Your task to perform on an android device: clear all cookies in the chrome app Image 0: 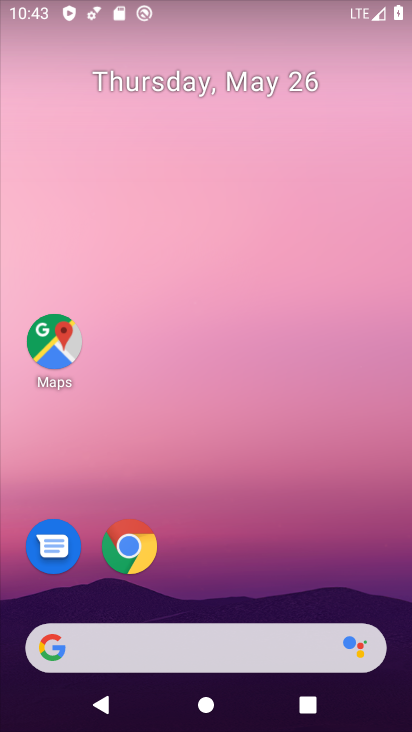
Step 0: click (131, 540)
Your task to perform on an android device: clear all cookies in the chrome app Image 1: 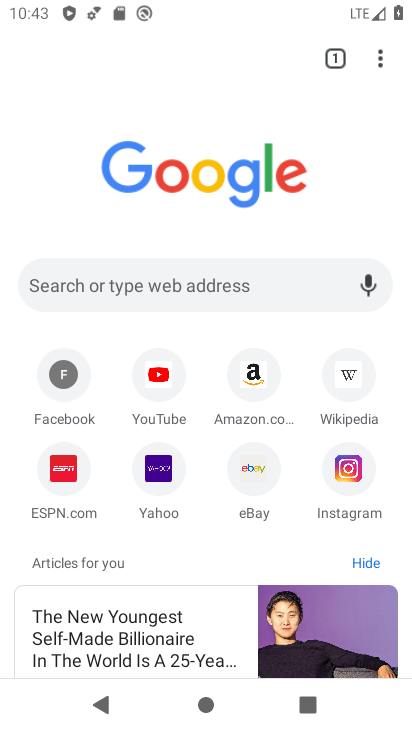
Step 1: click (373, 57)
Your task to perform on an android device: clear all cookies in the chrome app Image 2: 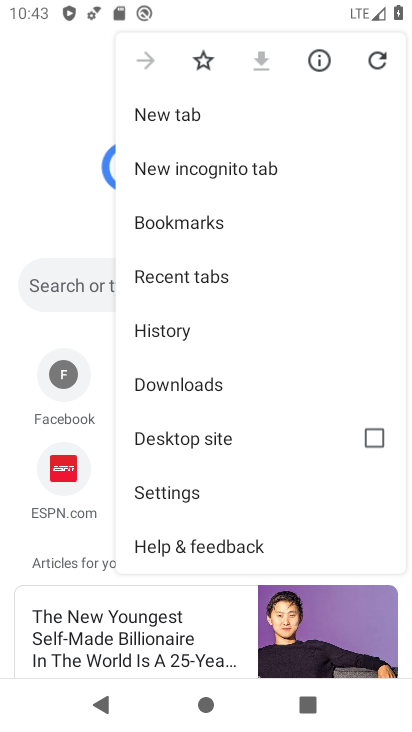
Step 2: click (179, 488)
Your task to perform on an android device: clear all cookies in the chrome app Image 3: 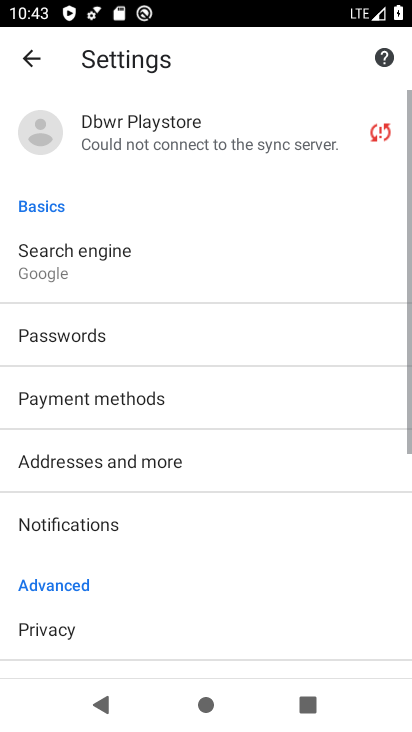
Step 3: drag from (141, 582) to (173, 289)
Your task to perform on an android device: clear all cookies in the chrome app Image 4: 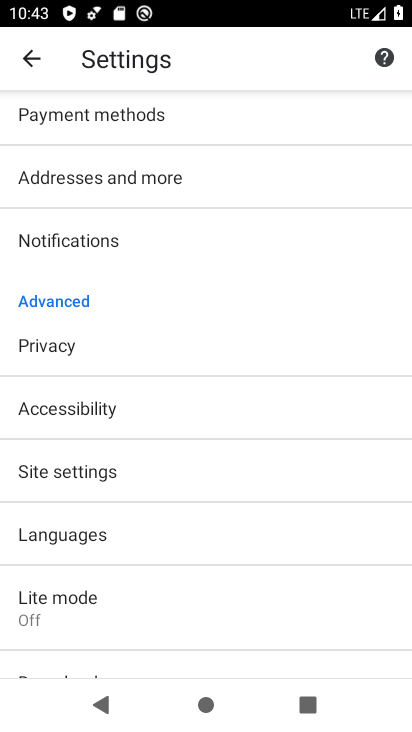
Step 4: click (109, 482)
Your task to perform on an android device: clear all cookies in the chrome app Image 5: 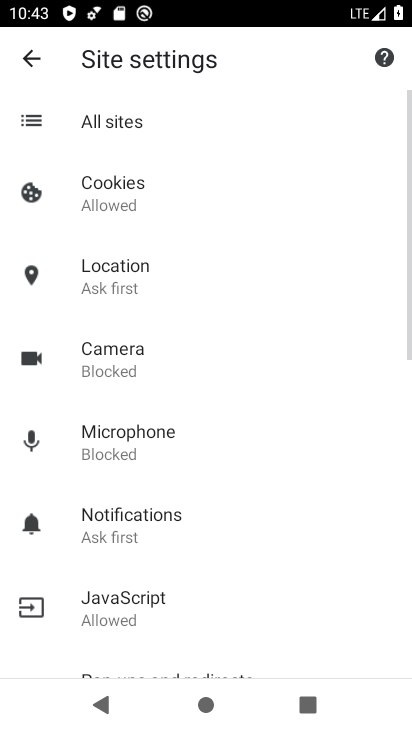
Step 5: click (111, 203)
Your task to perform on an android device: clear all cookies in the chrome app Image 6: 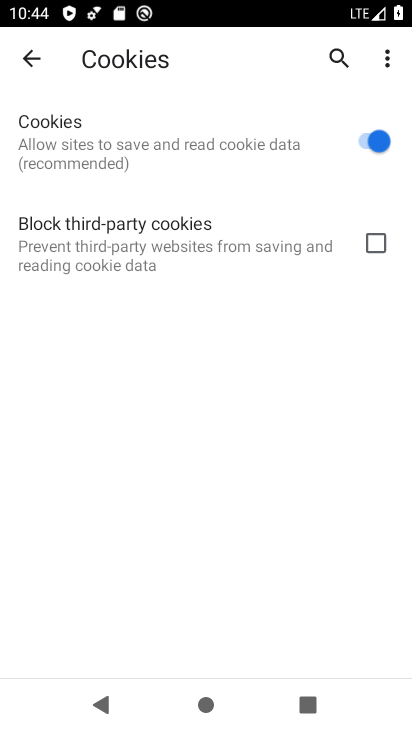
Step 6: task complete